Your task to perform on an android device: Empty the shopping cart on target.com. Search for lenovo thinkpad on target.com, select the first entry, and add it to the cart. Image 0: 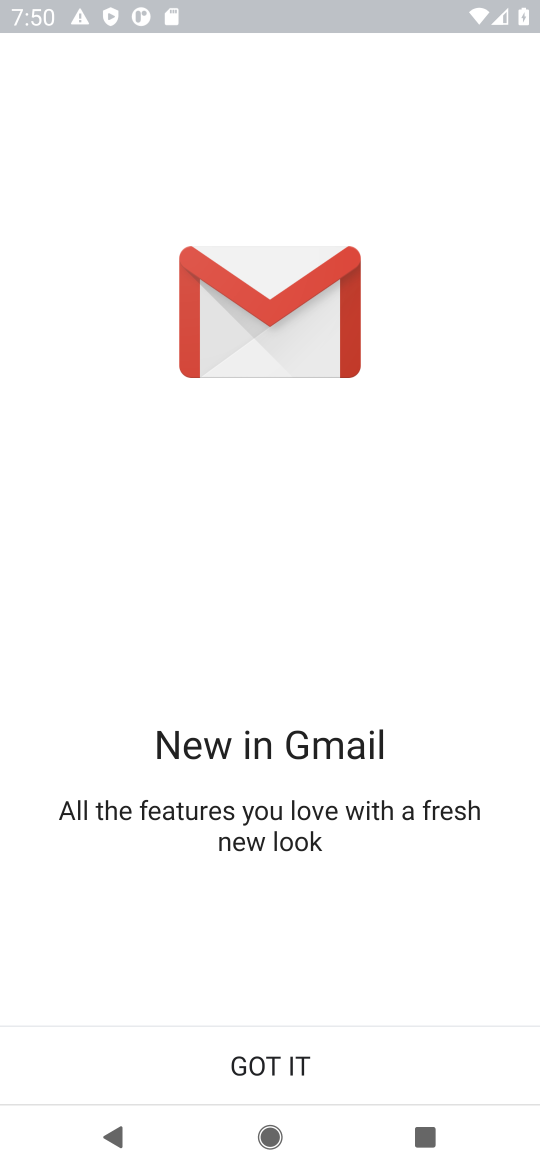
Step 0: press home button
Your task to perform on an android device: Empty the shopping cart on target.com. Search for lenovo thinkpad on target.com, select the first entry, and add it to the cart. Image 1: 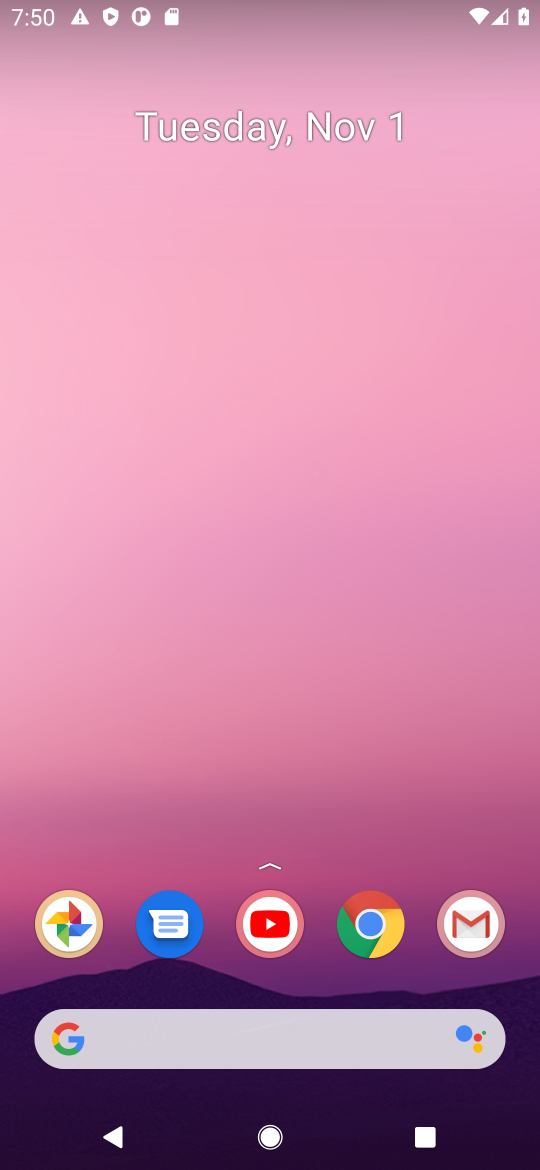
Step 1: click (120, 1058)
Your task to perform on an android device: Empty the shopping cart on target.com. Search for lenovo thinkpad on target.com, select the first entry, and add it to the cart. Image 2: 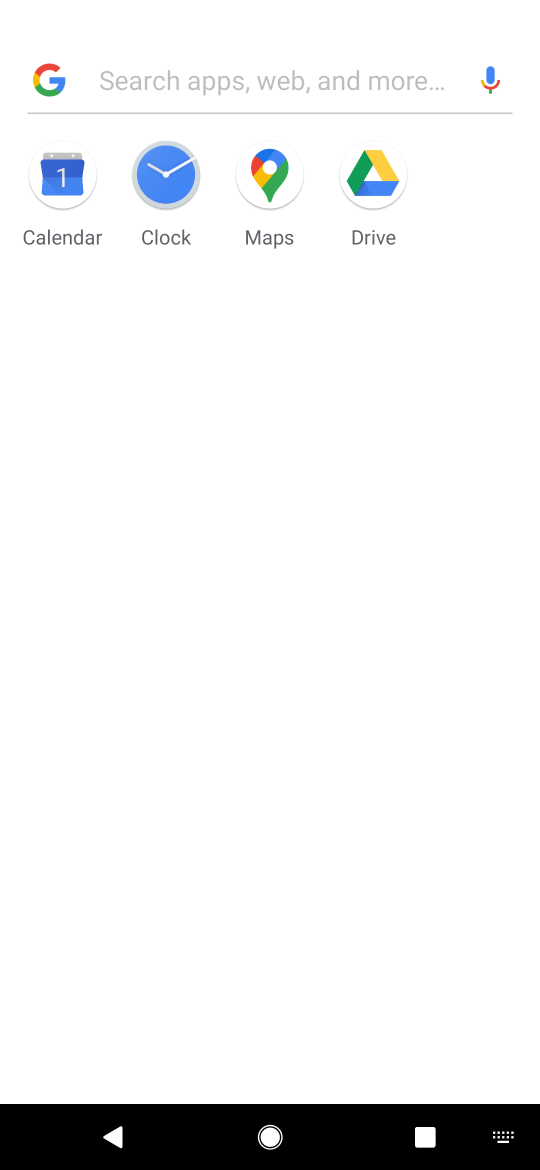
Step 2: type "target.com"
Your task to perform on an android device: Empty the shopping cart on target.com. Search for lenovo thinkpad on target.com, select the first entry, and add it to the cart. Image 3: 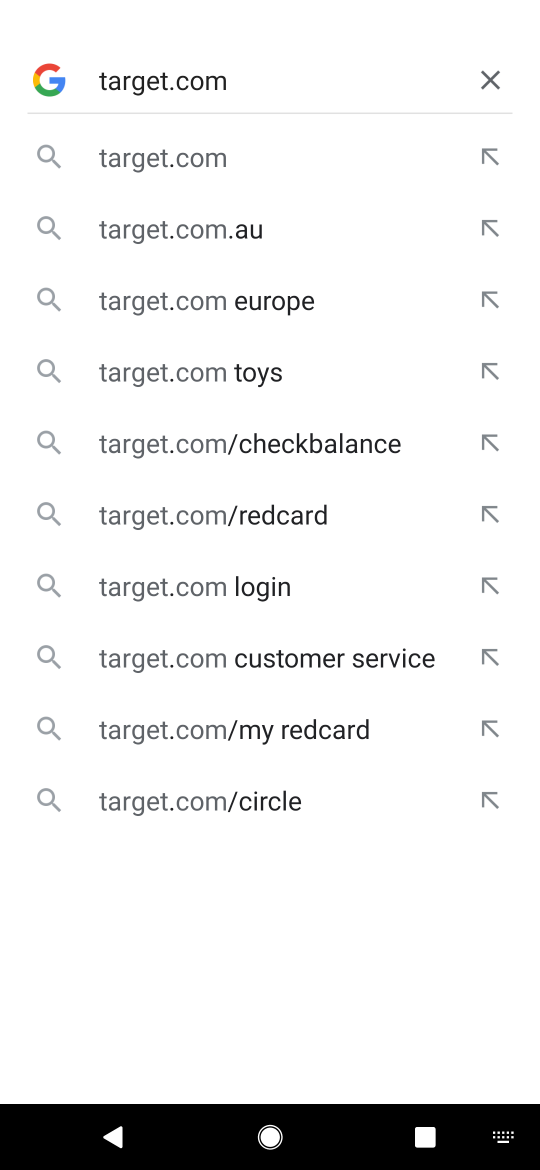
Step 3: press enter
Your task to perform on an android device: Empty the shopping cart on target.com. Search for lenovo thinkpad on target.com, select the first entry, and add it to the cart. Image 4: 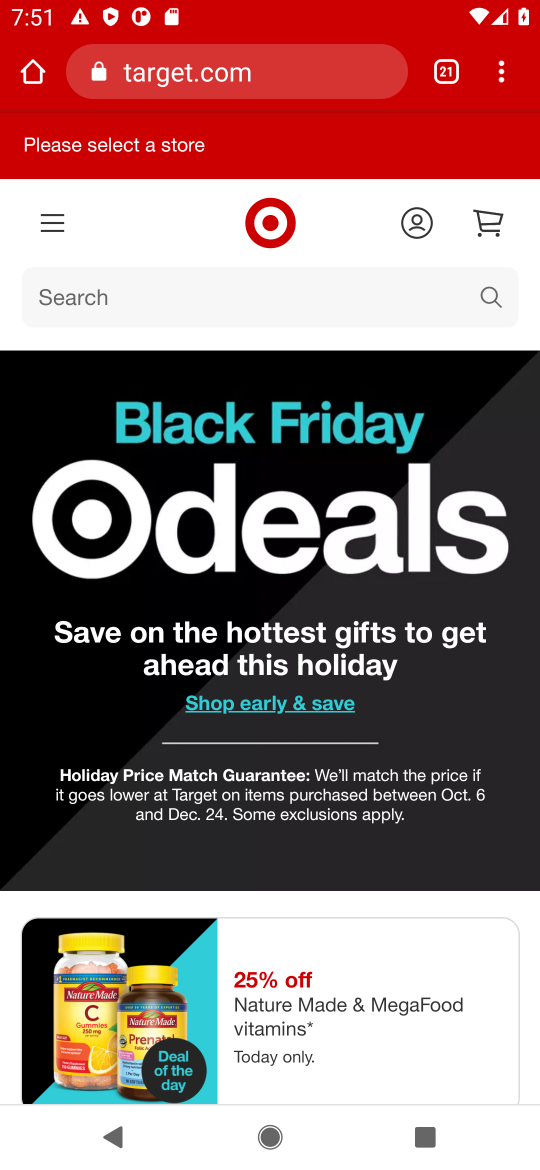
Step 4: click (490, 217)
Your task to perform on an android device: Empty the shopping cart on target.com. Search for lenovo thinkpad on target.com, select the first entry, and add it to the cart. Image 5: 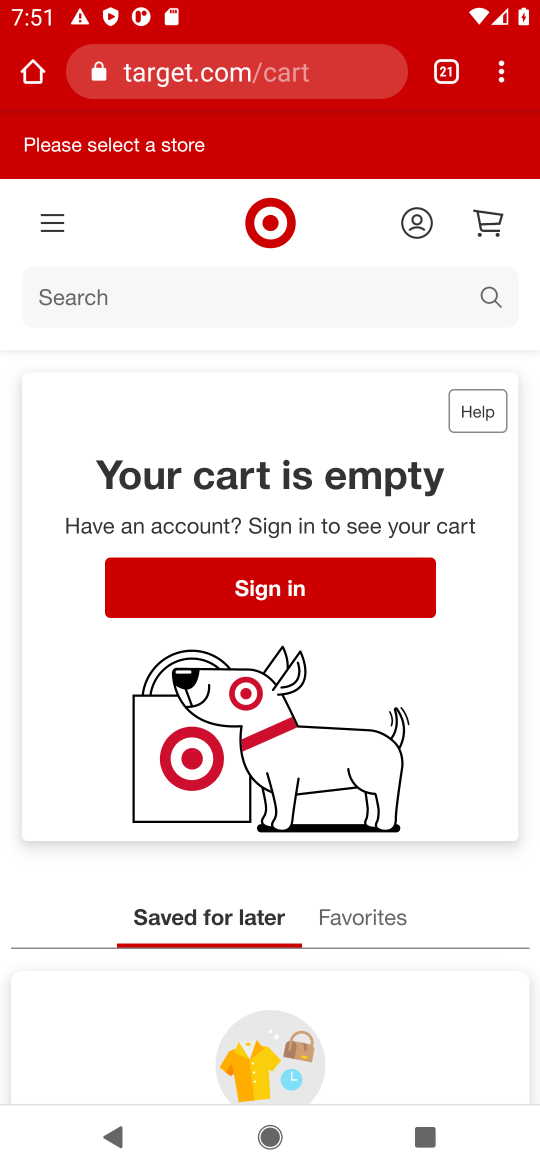
Step 5: click (70, 291)
Your task to perform on an android device: Empty the shopping cart on target.com. Search for lenovo thinkpad on target.com, select the first entry, and add it to the cart. Image 6: 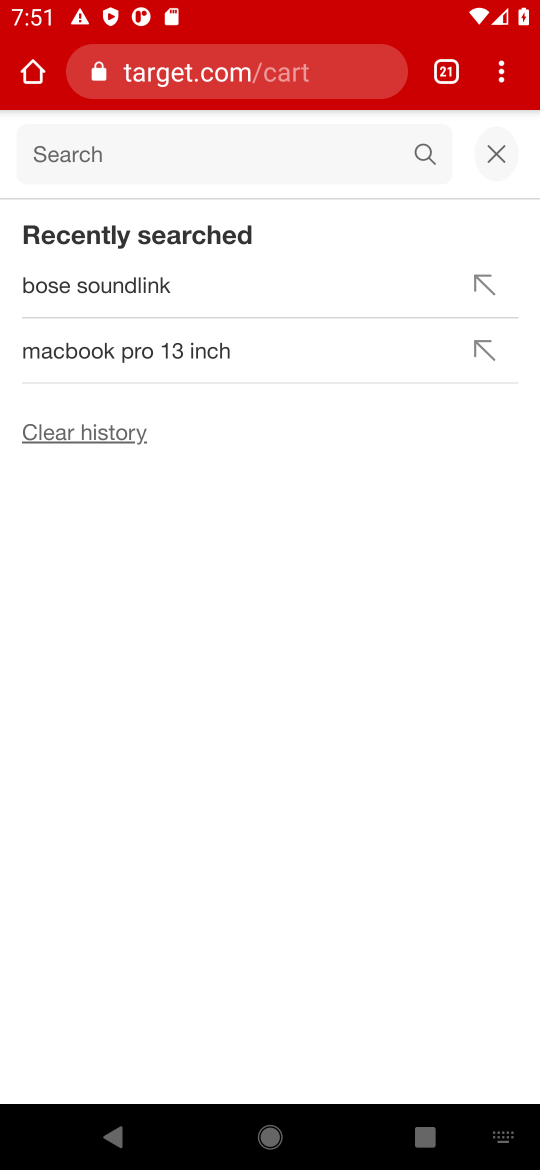
Step 6: type "lenovo thinkpad"
Your task to perform on an android device: Empty the shopping cart on target.com. Search for lenovo thinkpad on target.com, select the first entry, and add it to the cart. Image 7: 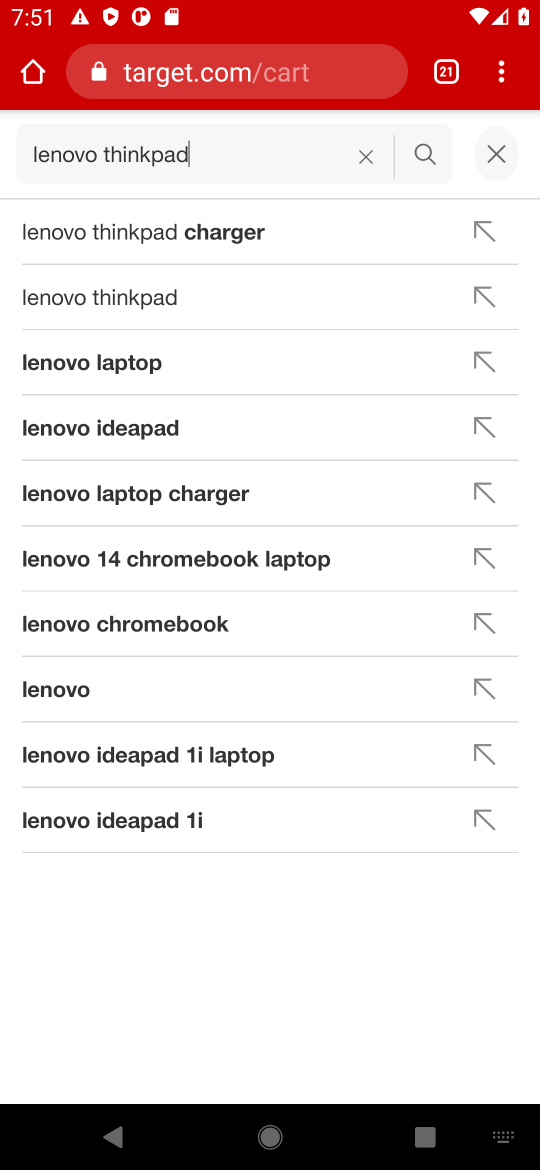
Step 7: click (426, 146)
Your task to perform on an android device: Empty the shopping cart on target.com. Search for lenovo thinkpad on target.com, select the first entry, and add it to the cart. Image 8: 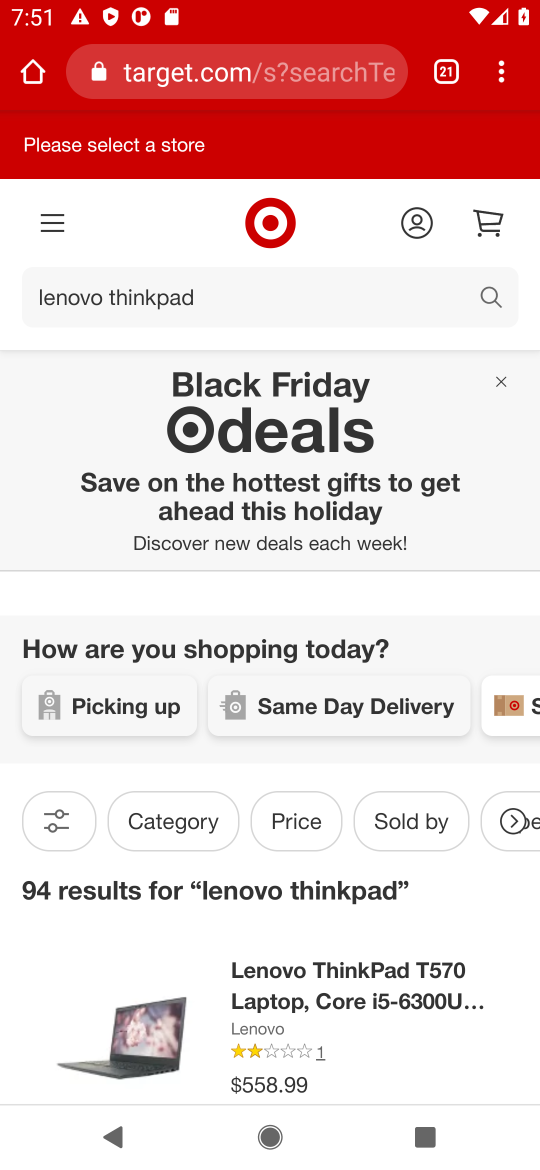
Step 8: drag from (346, 1017) to (384, 500)
Your task to perform on an android device: Empty the shopping cart on target.com. Search for lenovo thinkpad on target.com, select the first entry, and add it to the cart. Image 9: 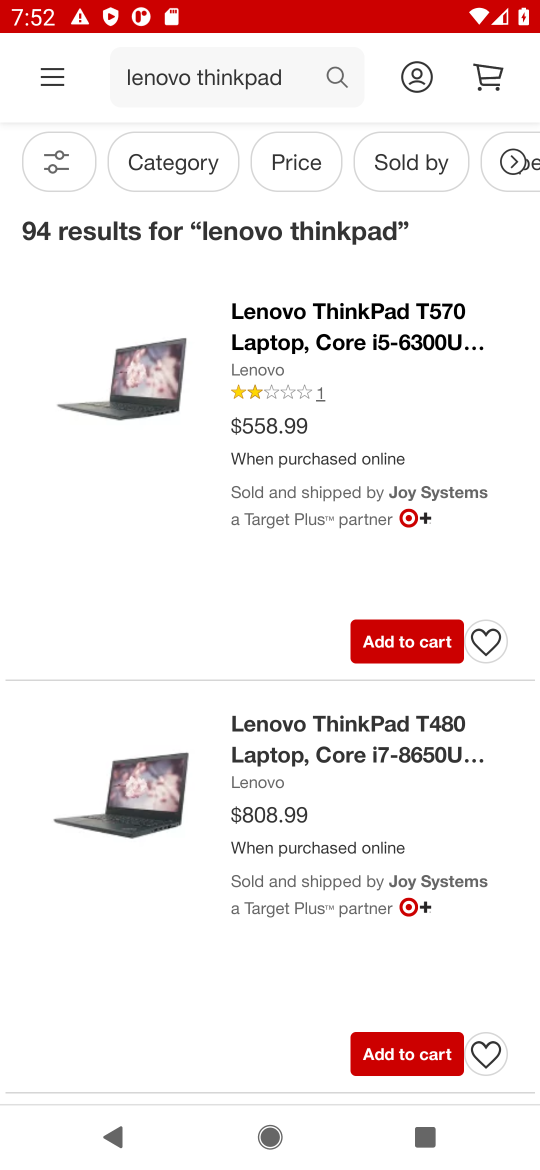
Step 9: click (399, 641)
Your task to perform on an android device: Empty the shopping cart on target.com. Search for lenovo thinkpad on target.com, select the first entry, and add it to the cart. Image 10: 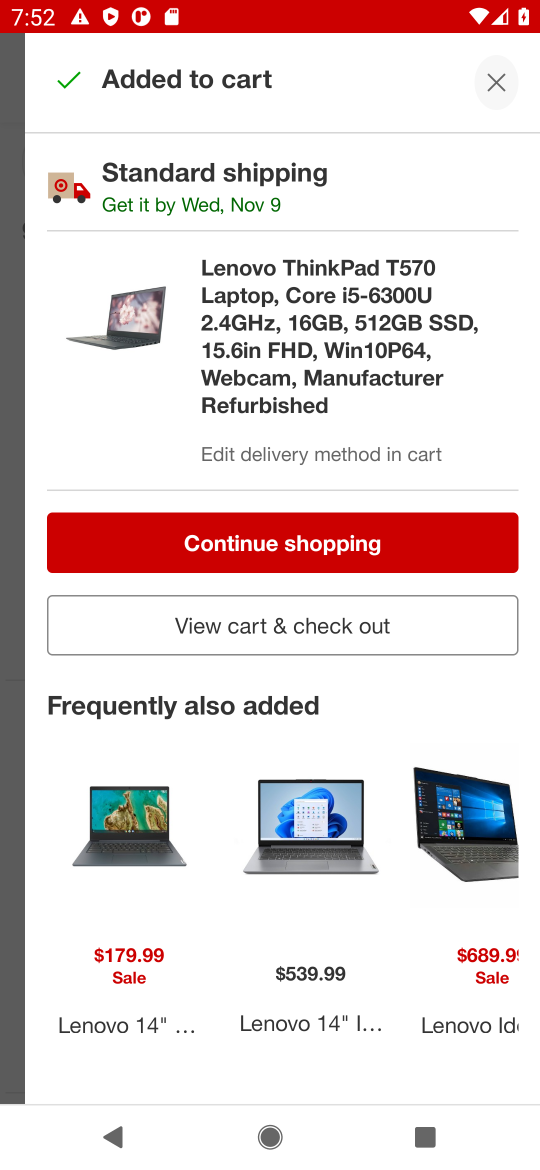
Step 10: click (251, 624)
Your task to perform on an android device: Empty the shopping cart on target.com. Search for lenovo thinkpad on target.com, select the first entry, and add it to the cart. Image 11: 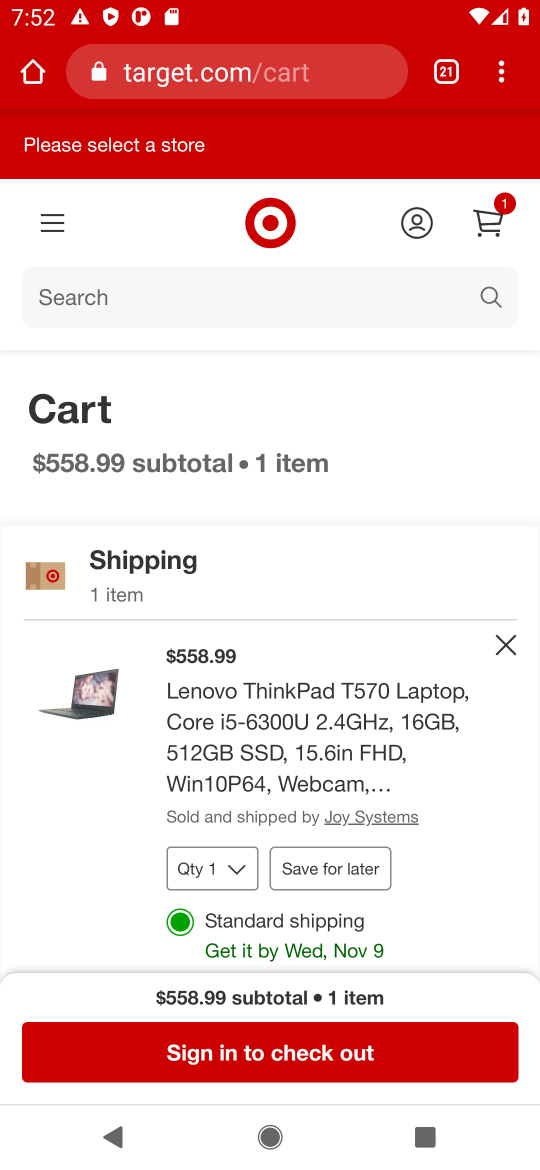
Step 11: click (241, 1055)
Your task to perform on an android device: Empty the shopping cart on target.com. Search for lenovo thinkpad on target.com, select the first entry, and add it to the cart. Image 12: 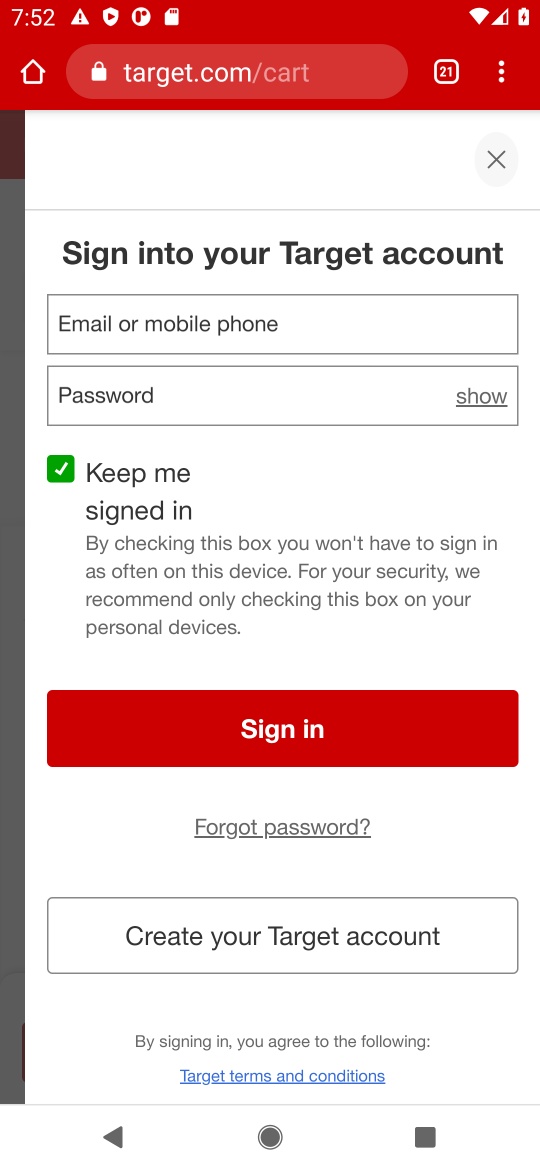
Step 12: task complete